Your task to perform on an android device: move a message to another label in the gmail app Image 0: 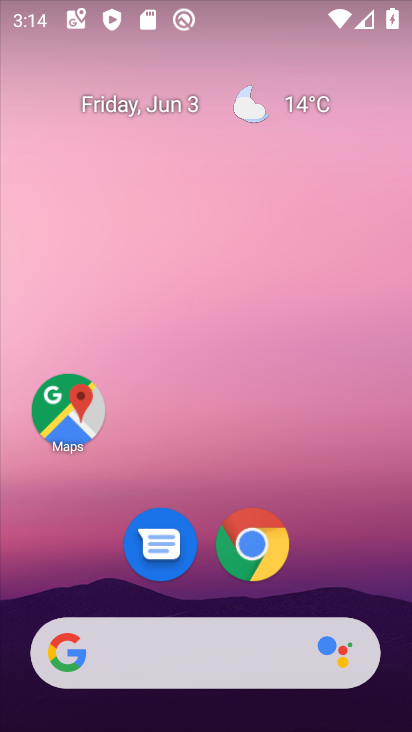
Step 0: drag from (392, 633) to (388, 119)
Your task to perform on an android device: move a message to another label in the gmail app Image 1: 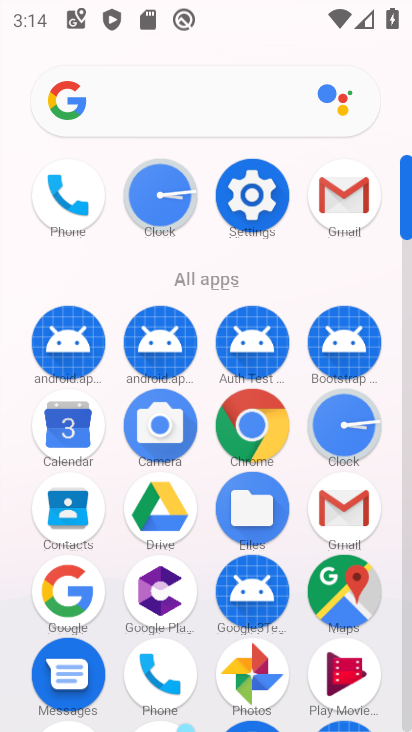
Step 1: click (407, 644)
Your task to perform on an android device: move a message to another label in the gmail app Image 2: 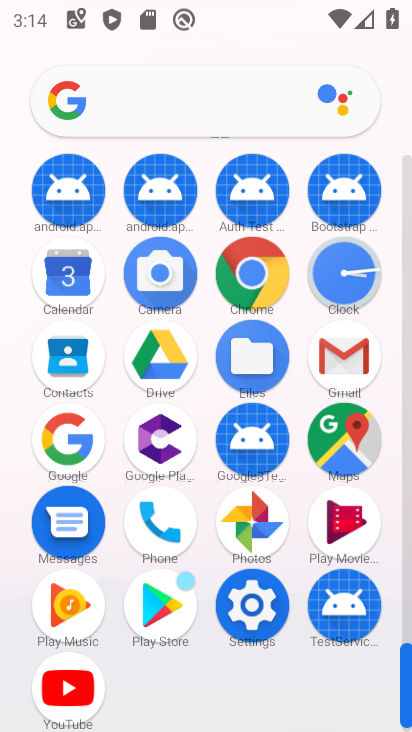
Step 2: click (342, 354)
Your task to perform on an android device: move a message to another label in the gmail app Image 3: 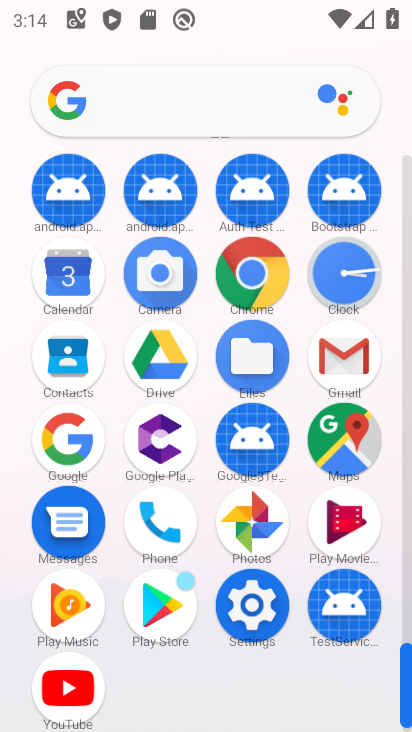
Step 3: click (340, 358)
Your task to perform on an android device: move a message to another label in the gmail app Image 4: 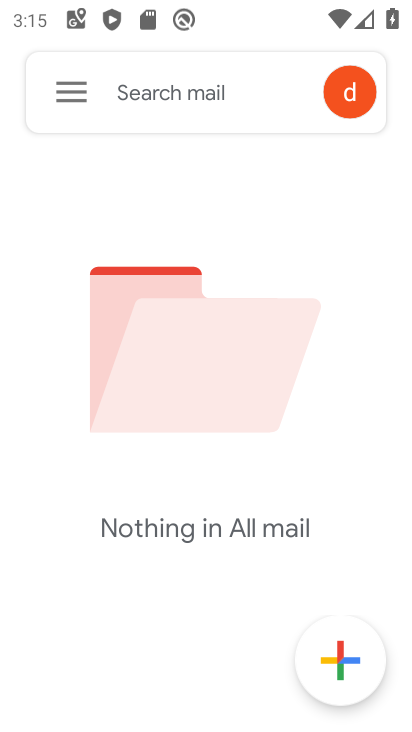
Step 4: click (69, 90)
Your task to perform on an android device: move a message to another label in the gmail app Image 5: 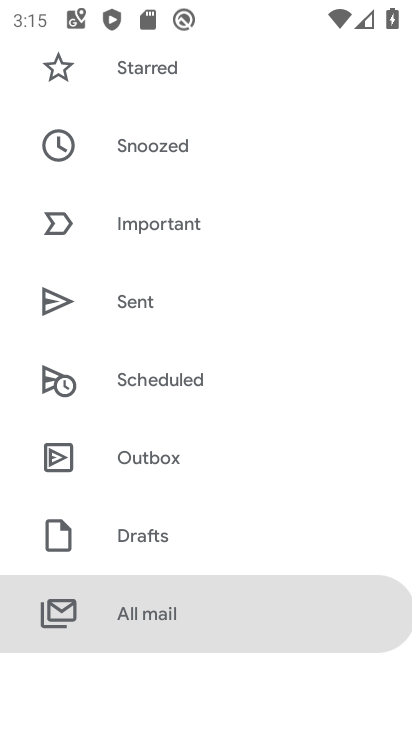
Step 5: click (167, 617)
Your task to perform on an android device: move a message to another label in the gmail app Image 6: 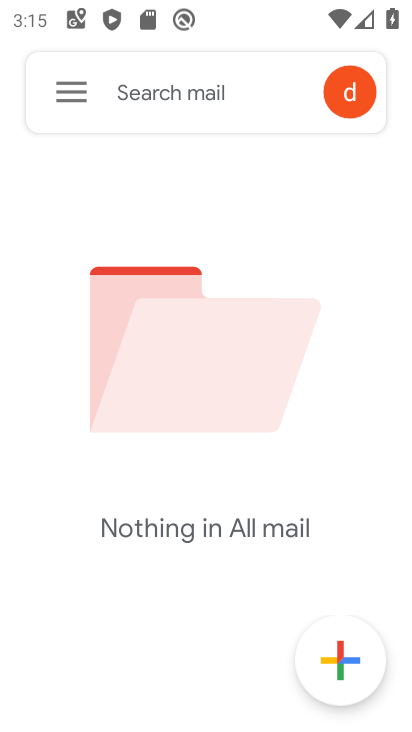
Step 6: task complete